Your task to perform on an android device: move a message to another label in the gmail app Image 0: 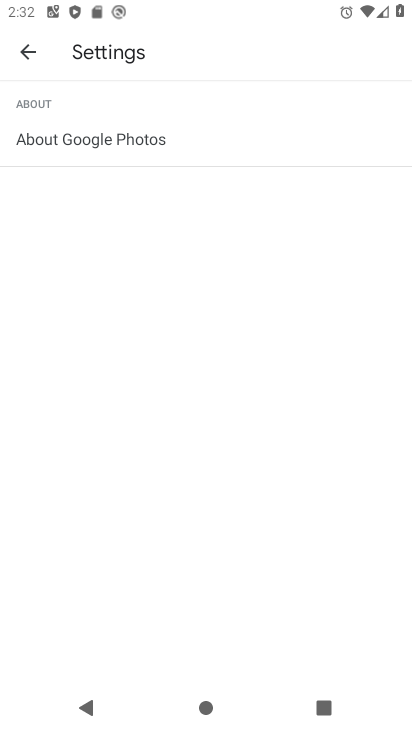
Step 0: press home button
Your task to perform on an android device: move a message to another label in the gmail app Image 1: 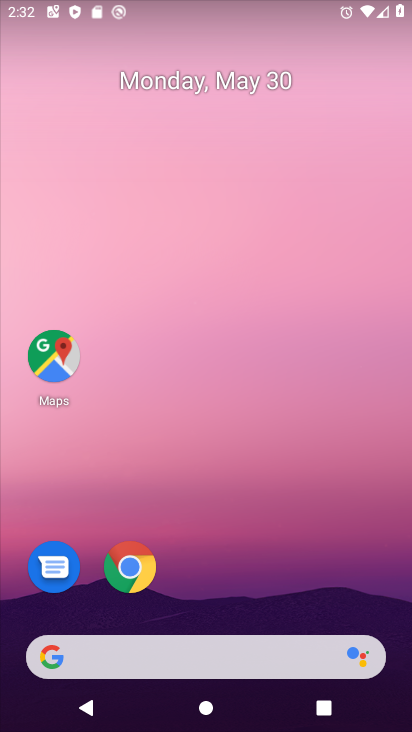
Step 1: drag from (227, 491) to (241, 194)
Your task to perform on an android device: move a message to another label in the gmail app Image 2: 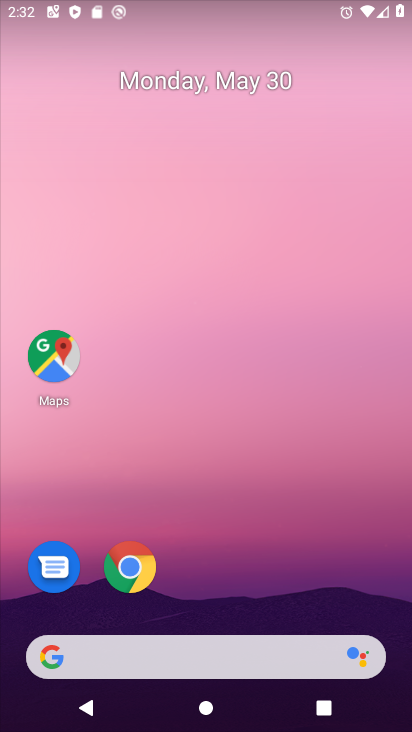
Step 2: drag from (206, 624) to (217, 39)
Your task to perform on an android device: move a message to another label in the gmail app Image 3: 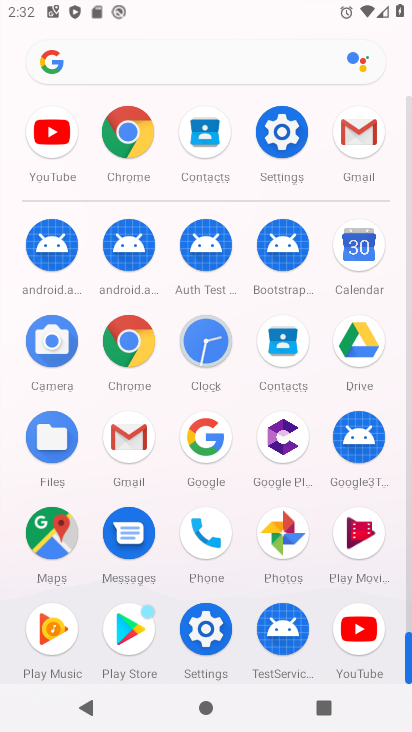
Step 3: click (135, 446)
Your task to perform on an android device: move a message to another label in the gmail app Image 4: 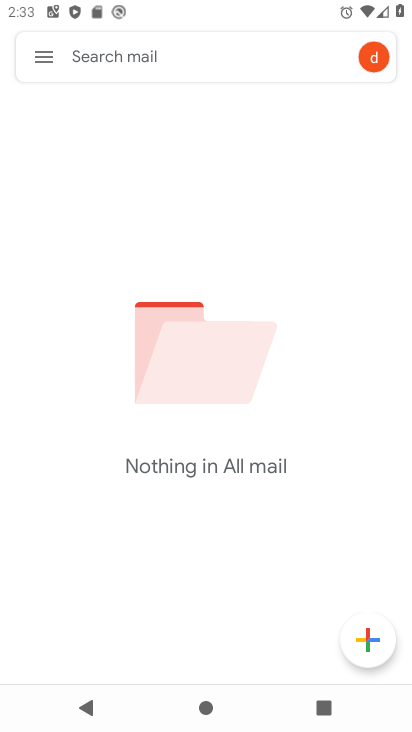
Step 4: task complete